Your task to perform on an android device: find which apps use the phone's location Image 0: 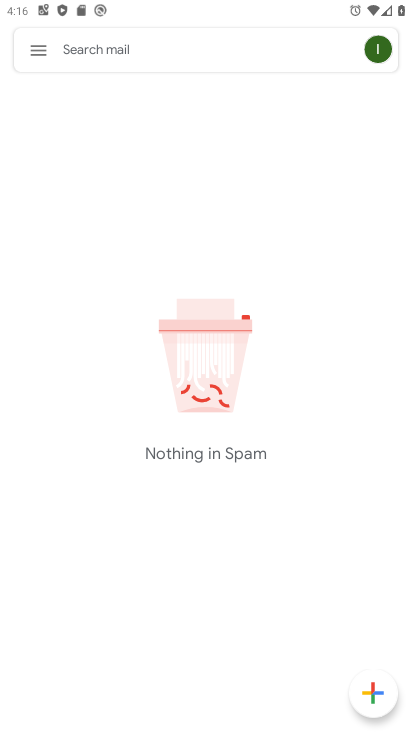
Step 0: press home button
Your task to perform on an android device: find which apps use the phone's location Image 1: 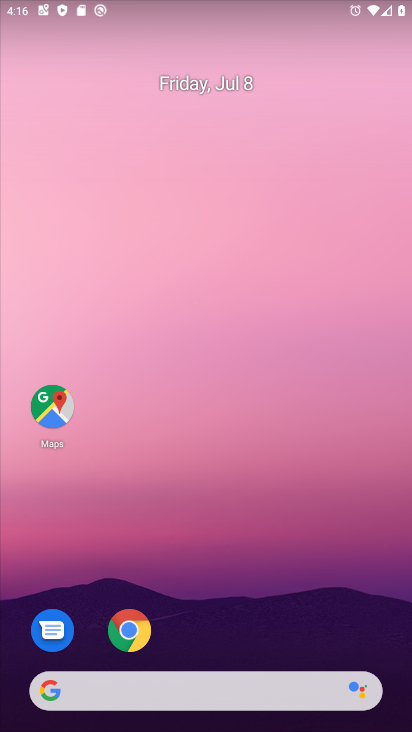
Step 1: drag from (211, 667) to (212, 51)
Your task to perform on an android device: find which apps use the phone's location Image 2: 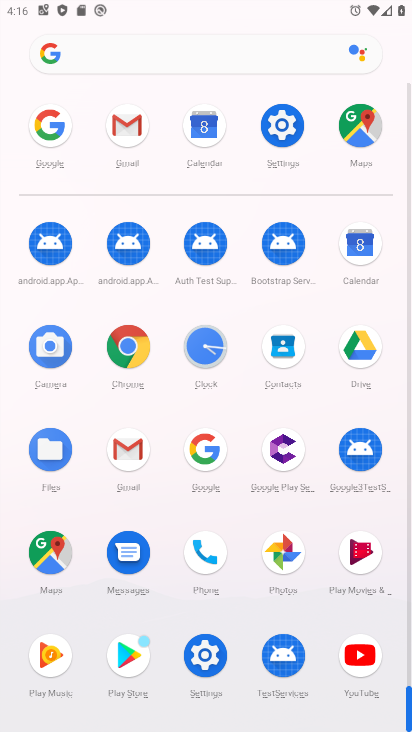
Step 2: click (279, 126)
Your task to perform on an android device: find which apps use the phone's location Image 3: 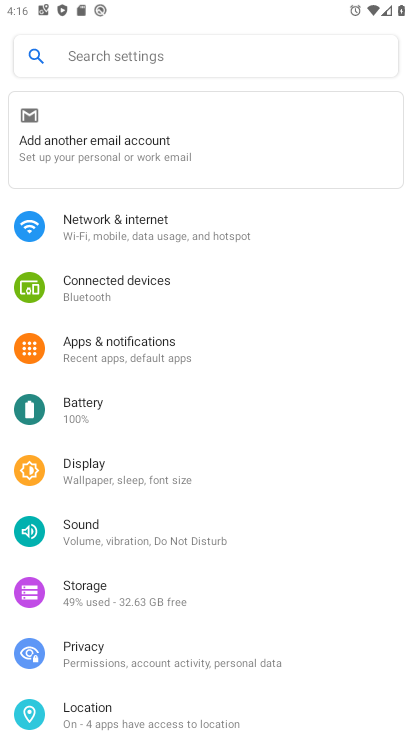
Step 3: drag from (140, 588) to (251, 422)
Your task to perform on an android device: find which apps use the phone's location Image 4: 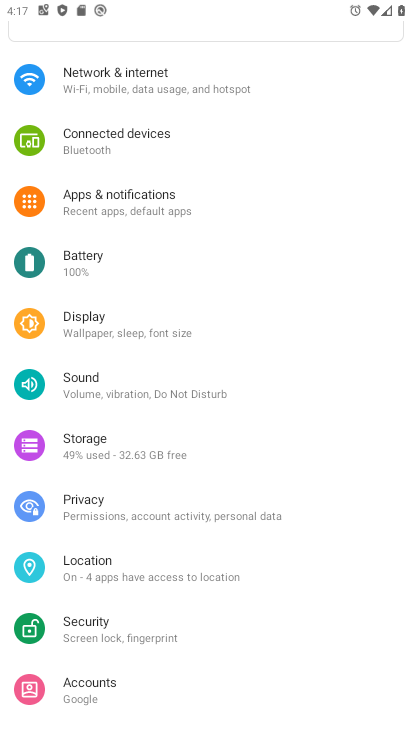
Step 4: click (138, 574)
Your task to perform on an android device: find which apps use the phone's location Image 5: 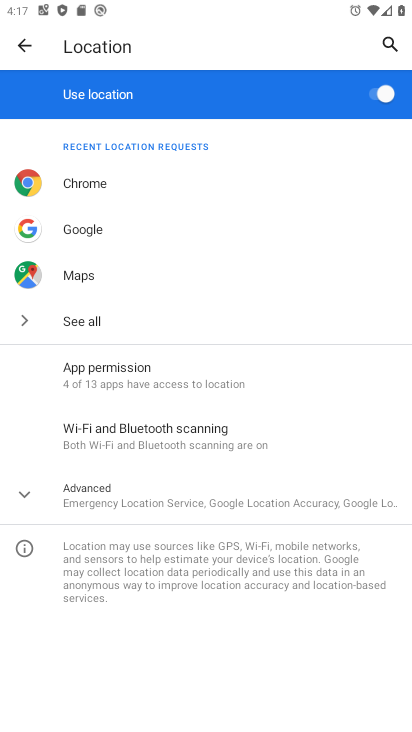
Step 5: click (125, 374)
Your task to perform on an android device: find which apps use the phone's location Image 6: 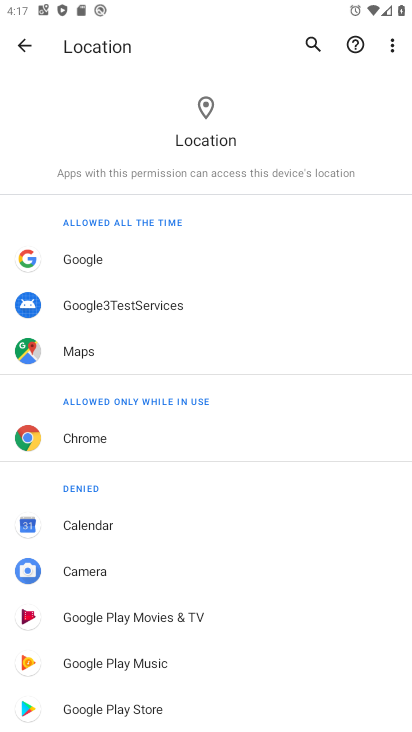
Step 6: click (85, 360)
Your task to perform on an android device: find which apps use the phone's location Image 7: 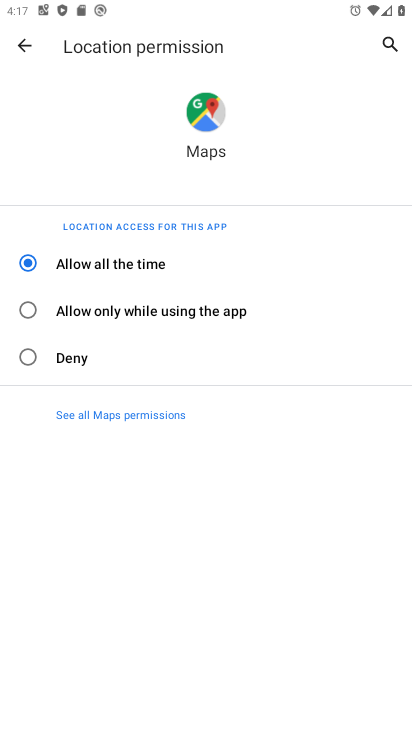
Step 7: task complete